Your task to perform on an android device: Open display settings Image 0: 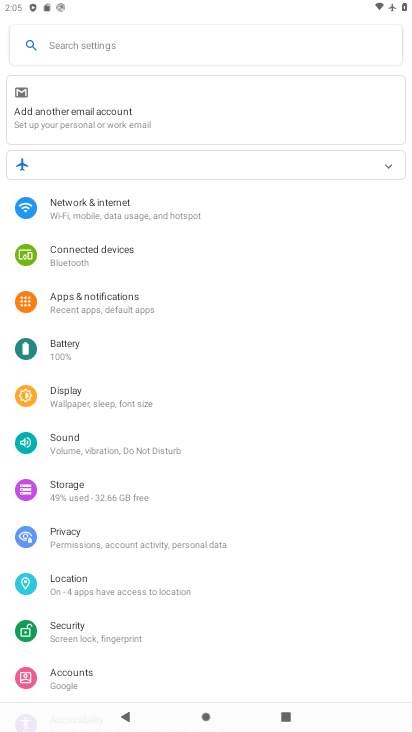
Step 0: click (60, 399)
Your task to perform on an android device: Open display settings Image 1: 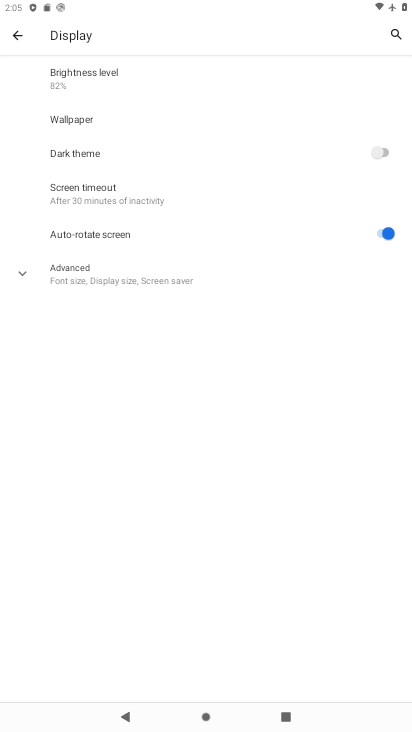
Step 1: click (60, 265)
Your task to perform on an android device: Open display settings Image 2: 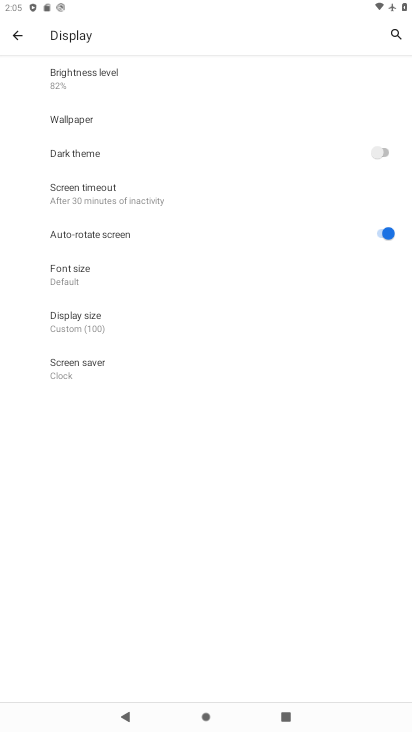
Step 2: task complete